Your task to perform on an android device: Open Chrome and go to settings Image 0: 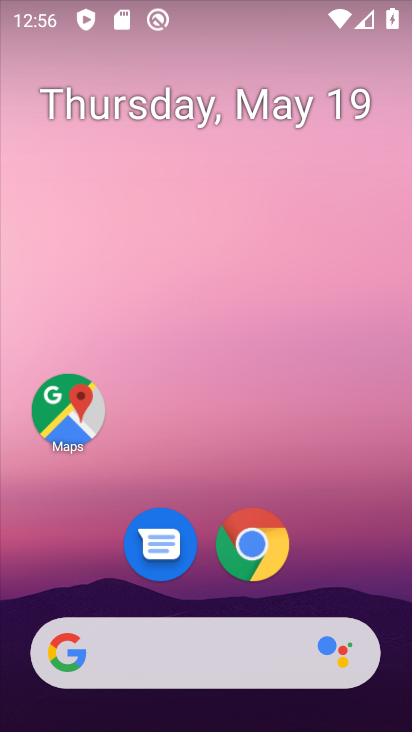
Step 0: drag from (254, 682) to (129, 228)
Your task to perform on an android device: Open Chrome and go to settings Image 1: 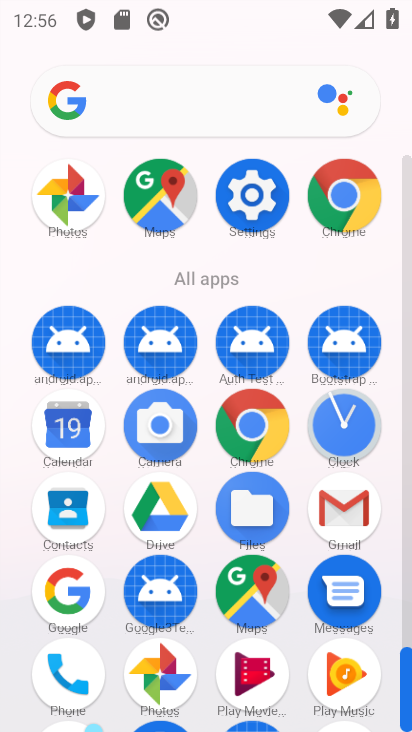
Step 1: click (263, 421)
Your task to perform on an android device: Open Chrome and go to settings Image 2: 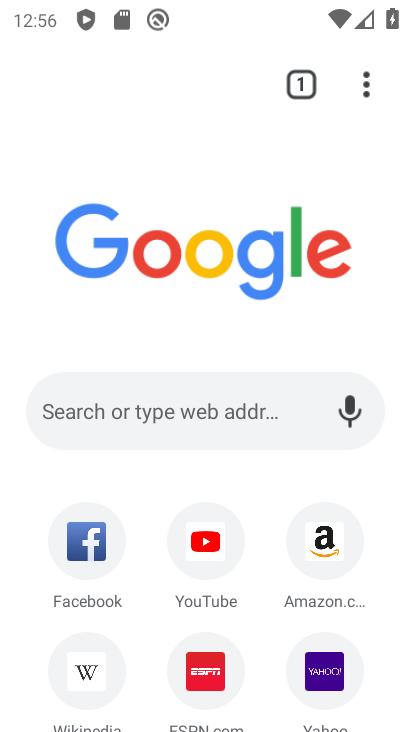
Step 2: click (364, 101)
Your task to perform on an android device: Open Chrome and go to settings Image 3: 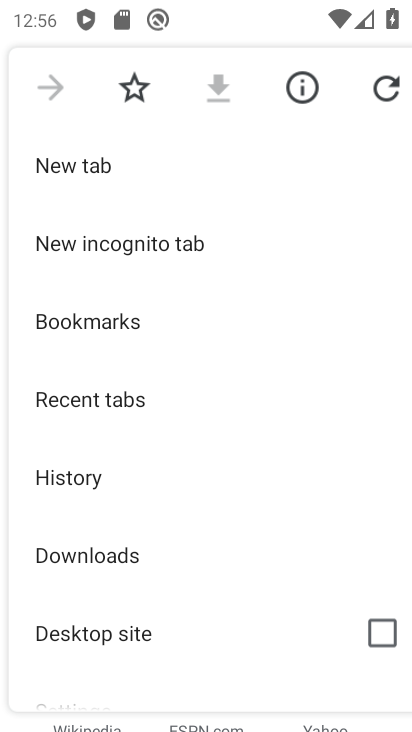
Step 3: drag from (137, 667) to (80, 581)
Your task to perform on an android device: Open Chrome and go to settings Image 4: 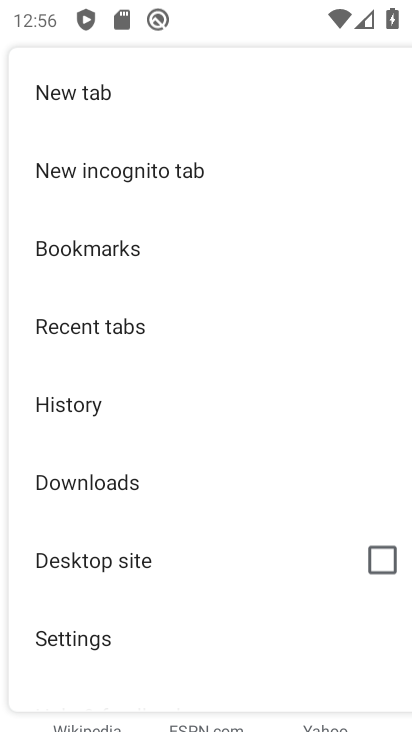
Step 4: click (95, 636)
Your task to perform on an android device: Open Chrome and go to settings Image 5: 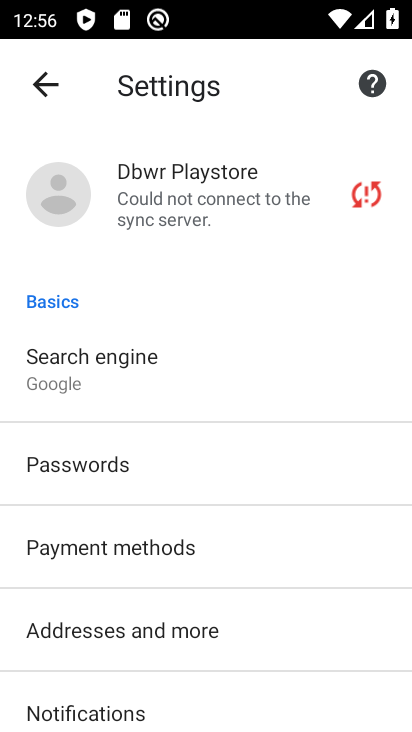
Step 5: task complete